Your task to perform on an android device: What's on my calendar today? Image 0: 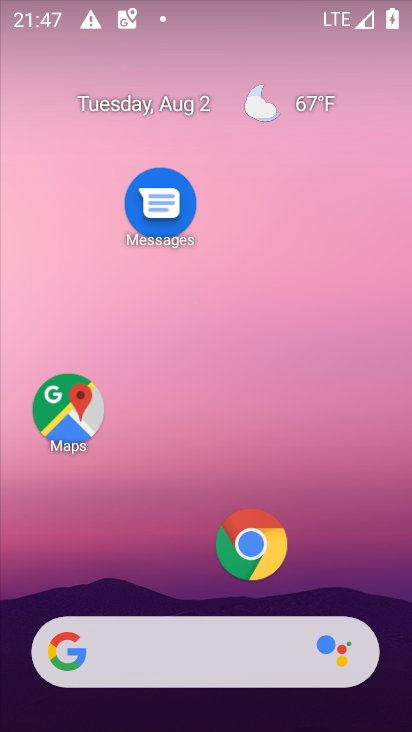
Step 0: drag from (181, 573) to (218, 163)
Your task to perform on an android device: What's on my calendar today? Image 1: 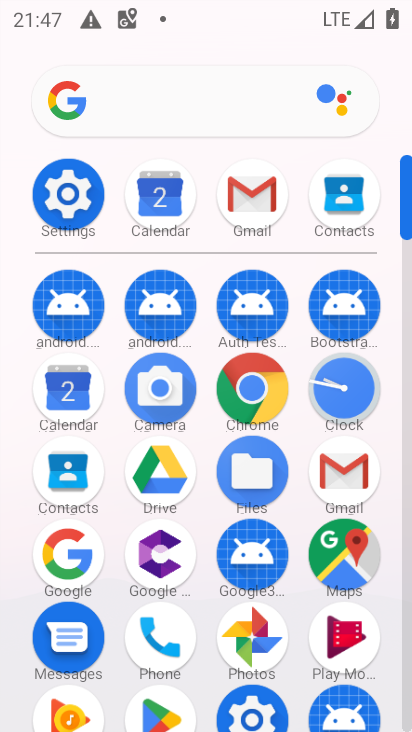
Step 1: click (51, 402)
Your task to perform on an android device: What's on my calendar today? Image 2: 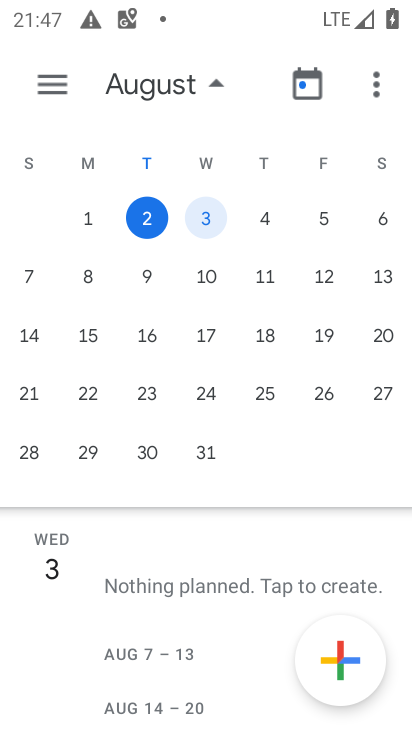
Step 2: click (165, 223)
Your task to perform on an android device: What's on my calendar today? Image 3: 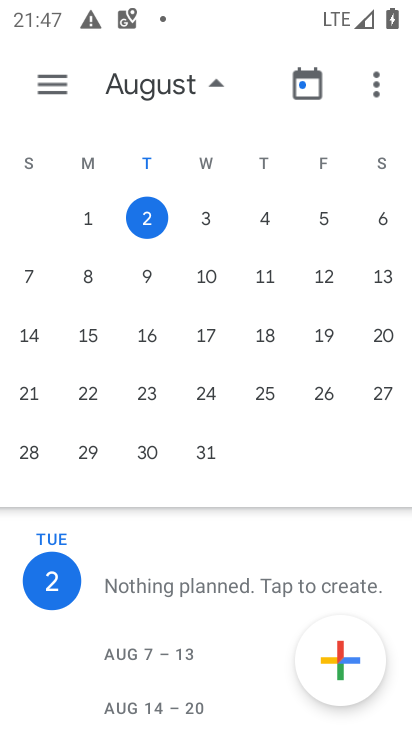
Step 3: task complete